Your task to perform on an android device: turn vacation reply on in the gmail app Image 0: 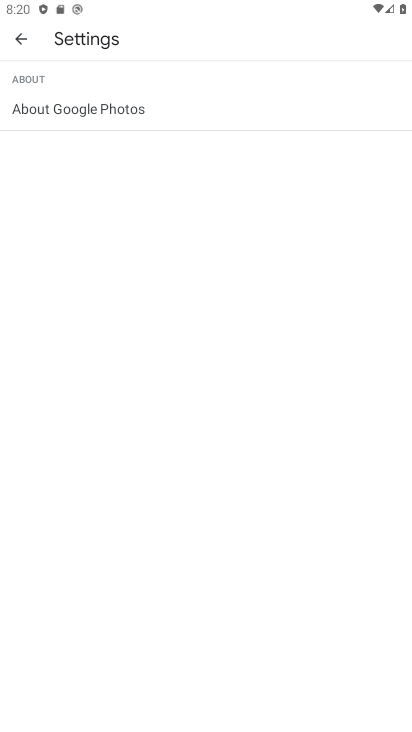
Step 0: press home button
Your task to perform on an android device: turn vacation reply on in the gmail app Image 1: 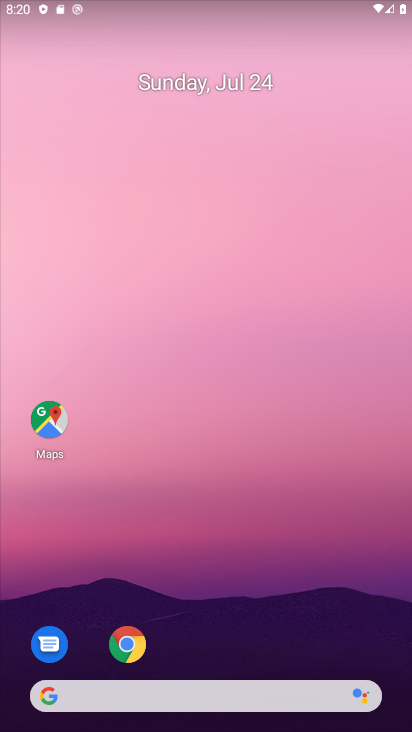
Step 1: drag from (274, 642) to (215, 47)
Your task to perform on an android device: turn vacation reply on in the gmail app Image 2: 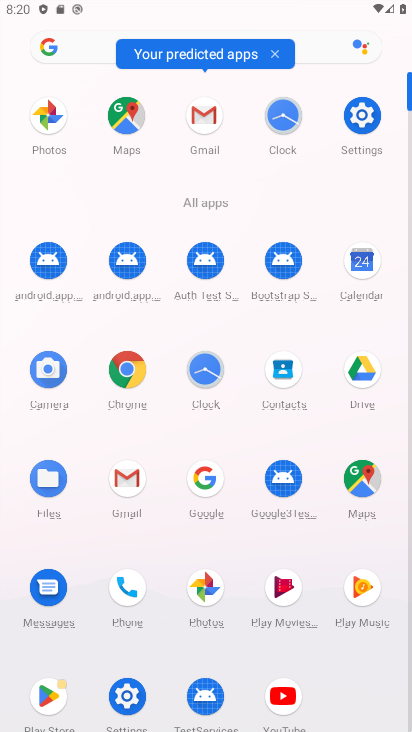
Step 2: click (193, 114)
Your task to perform on an android device: turn vacation reply on in the gmail app Image 3: 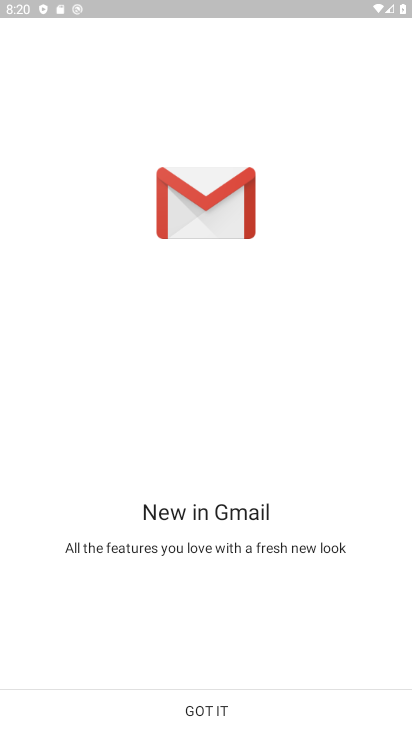
Step 3: click (237, 699)
Your task to perform on an android device: turn vacation reply on in the gmail app Image 4: 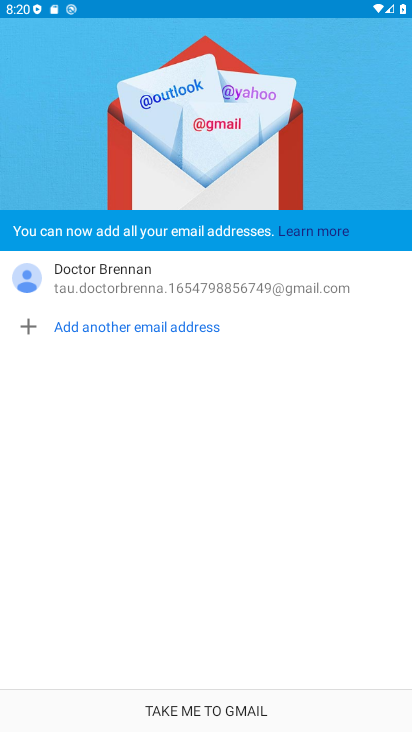
Step 4: click (237, 699)
Your task to perform on an android device: turn vacation reply on in the gmail app Image 5: 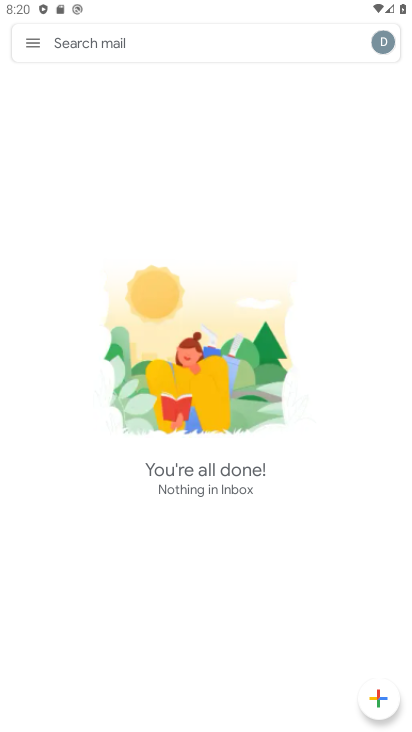
Step 5: click (26, 37)
Your task to perform on an android device: turn vacation reply on in the gmail app Image 6: 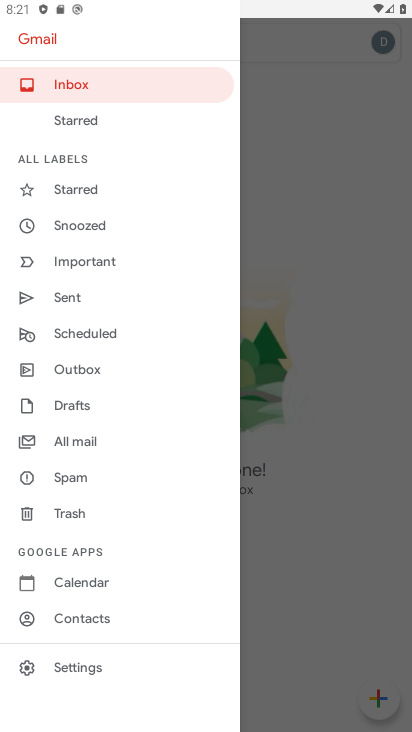
Step 6: click (116, 671)
Your task to perform on an android device: turn vacation reply on in the gmail app Image 7: 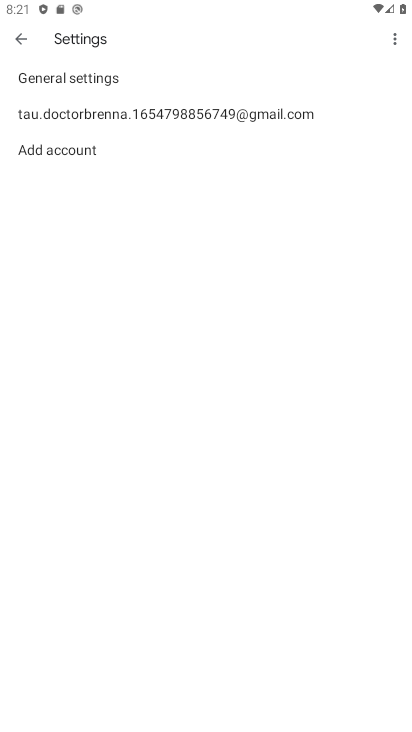
Step 7: click (338, 107)
Your task to perform on an android device: turn vacation reply on in the gmail app Image 8: 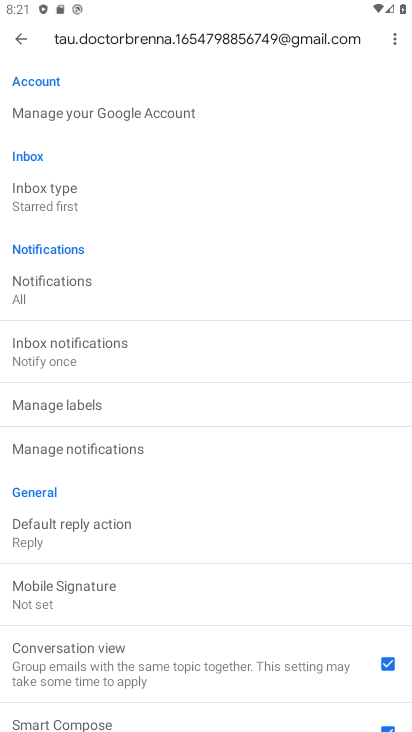
Step 8: drag from (173, 635) to (139, 194)
Your task to perform on an android device: turn vacation reply on in the gmail app Image 9: 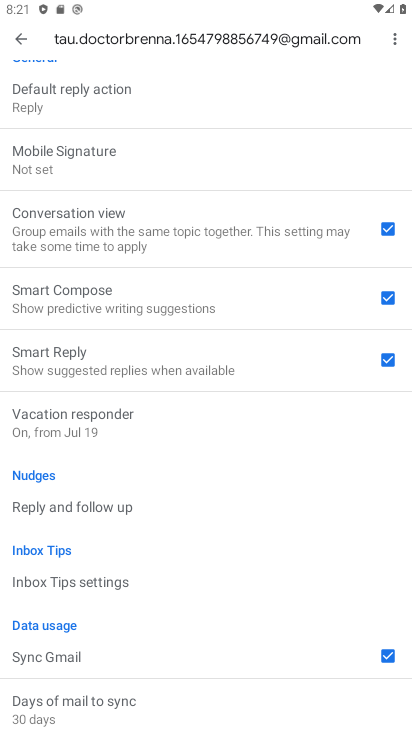
Step 9: click (129, 433)
Your task to perform on an android device: turn vacation reply on in the gmail app Image 10: 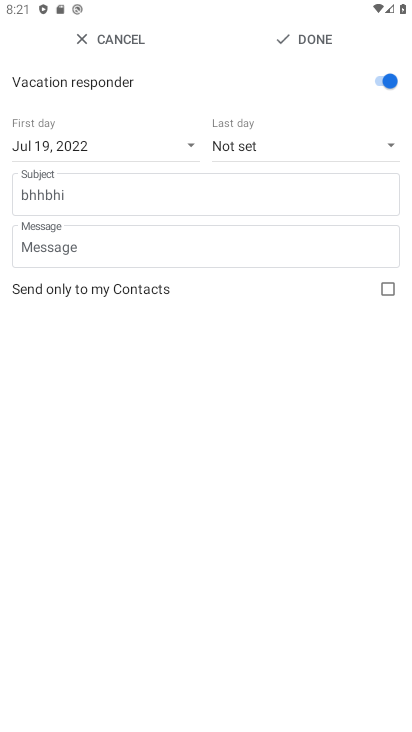
Step 10: click (251, 196)
Your task to perform on an android device: turn vacation reply on in the gmail app Image 11: 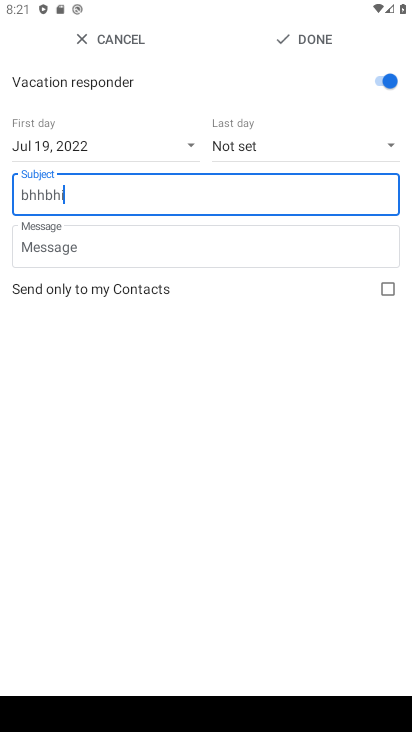
Step 11: type "hjkhk"
Your task to perform on an android device: turn vacation reply on in the gmail app Image 12: 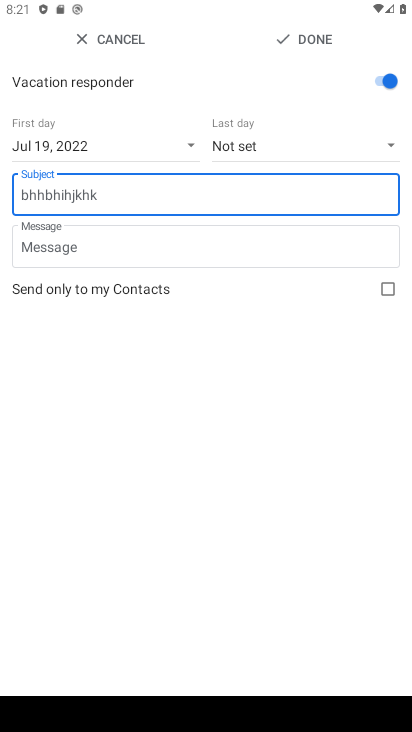
Step 12: click (317, 39)
Your task to perform on an android device: turn vacation reply on in the gmail app Image 13: 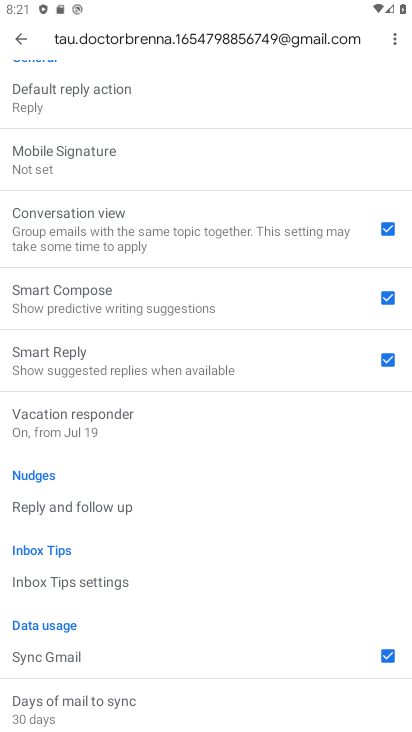
Step 13: task complete